Your task to perform on an android device: turn notification dots on Image 0: 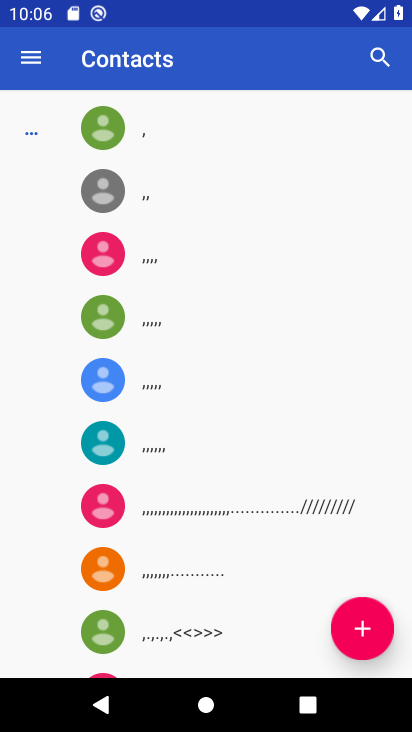
Step 0: press home button
Your task to perform on an android device: turn notification dots on Image 1: 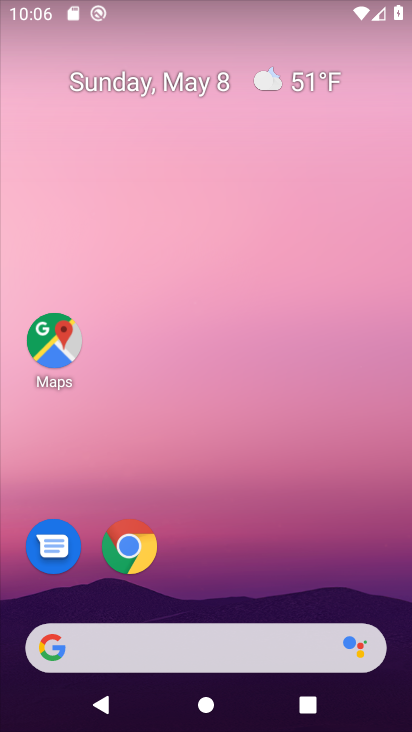
Step 1: drag from (379, 590) to (334, 100)
Your task to perform on an android device: turn notification dots on Image 2: 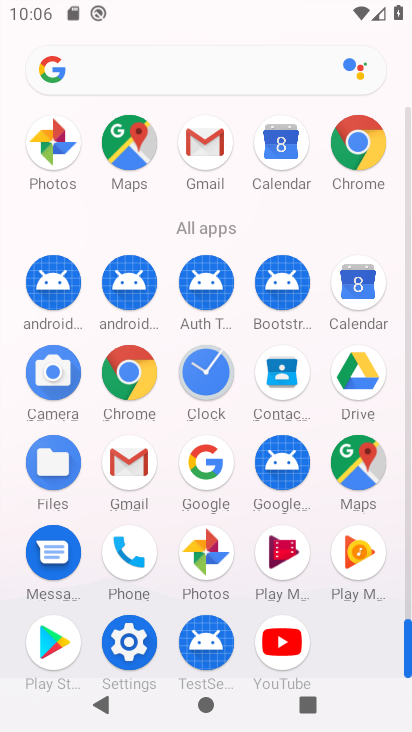
Step 2: click (129, 646)
Your task to perform on an android device: turn notification dots on Image 3: 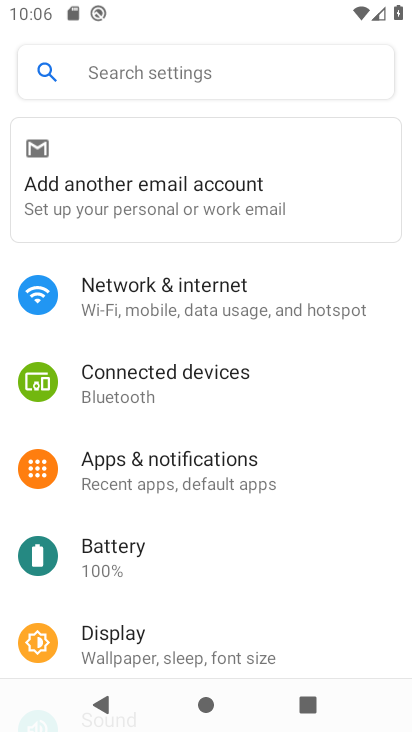
Step 3: click (116, 470)
Your task to perform on an android device: turn notification dots on Image 4: 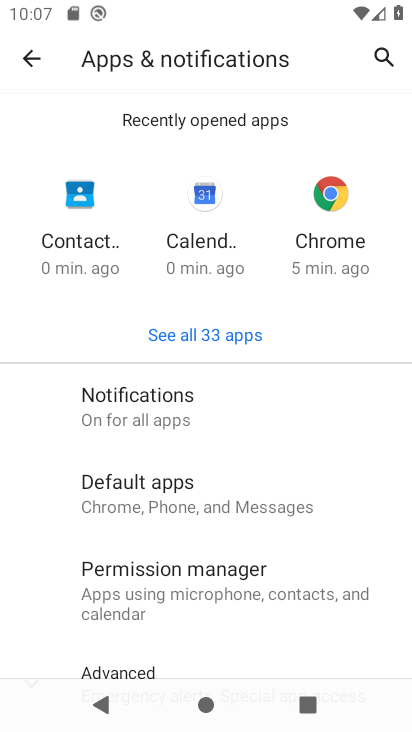
Step 4: click (84, 416)
Your task to perform on an android device: turn notification dots on Image 5: 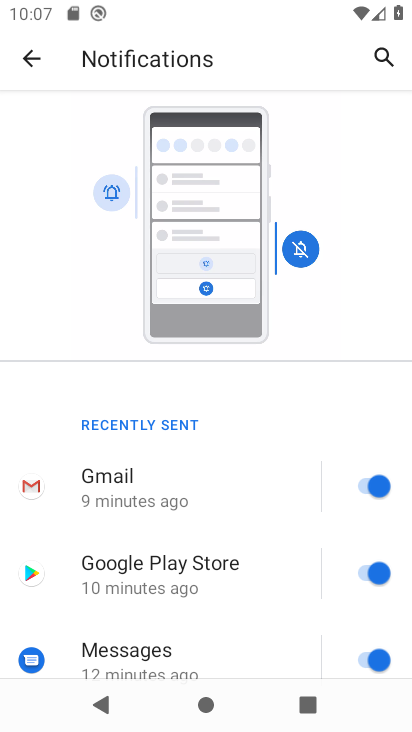
Step 5: drag from (318, 646) to (206, 114)
Your task to perform on an android device: turn notification dots on Image 6: 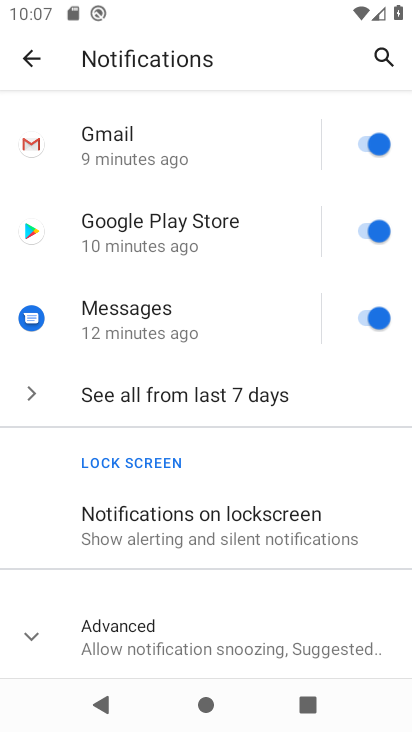
Step 6: click (29, 633)
Your task to perform on an android device: turn notification dots on Image 7: 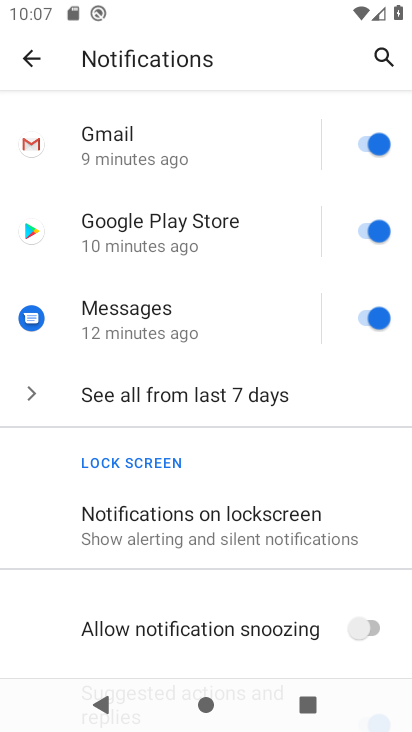
Step 7: task complete